Your task to perform on an android device: add a contact Image 0: 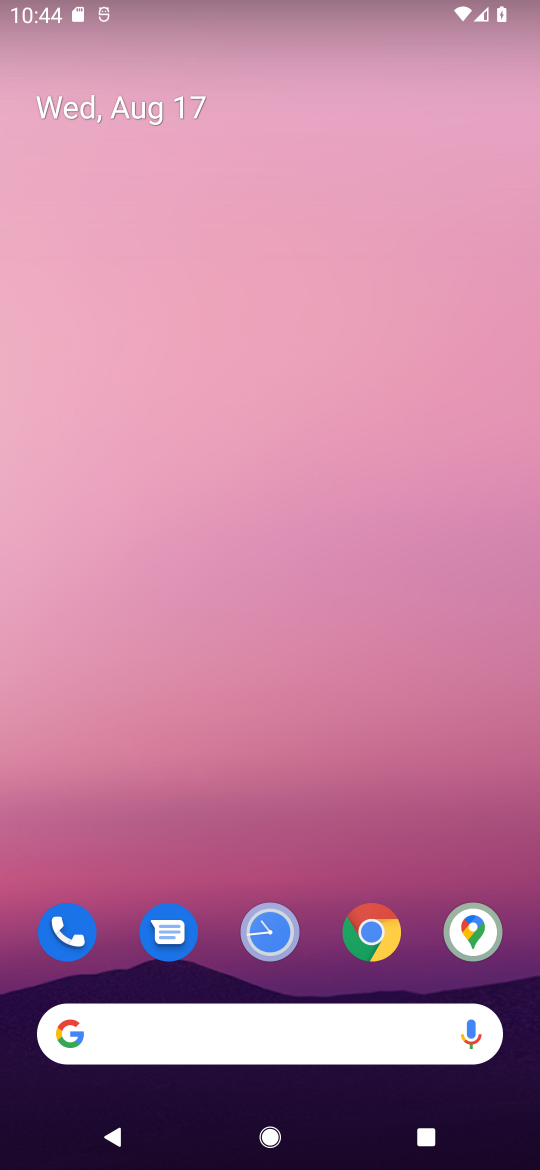
Step 0: drag from (315, 963) to (270, 60)
Your task to perform on an android device: add a contact Image 1: 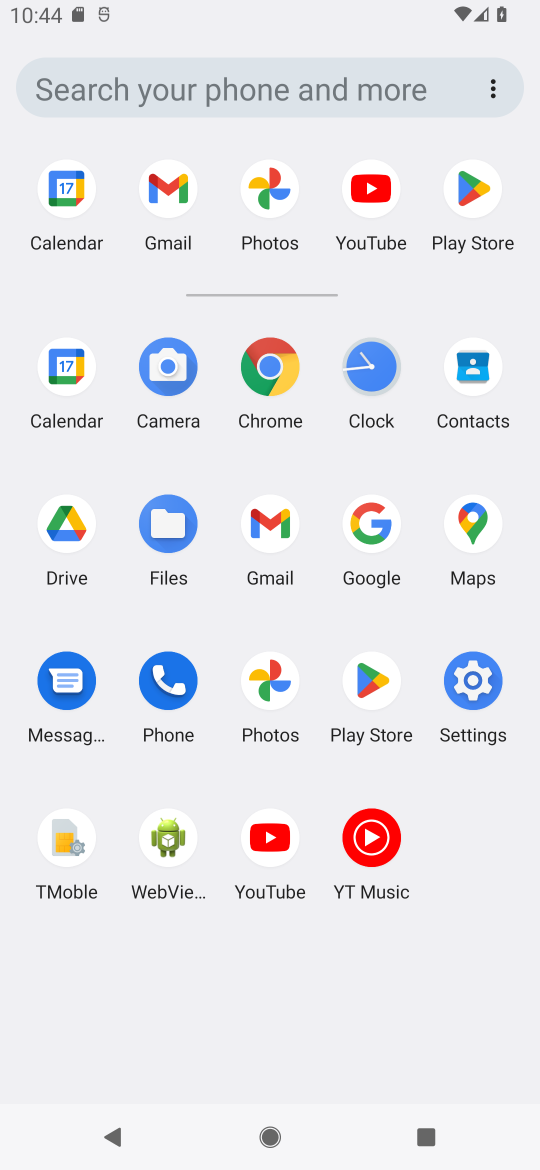
Step 1: click (463, 372)
Your task to perform on an android device: add a contact Image 2: 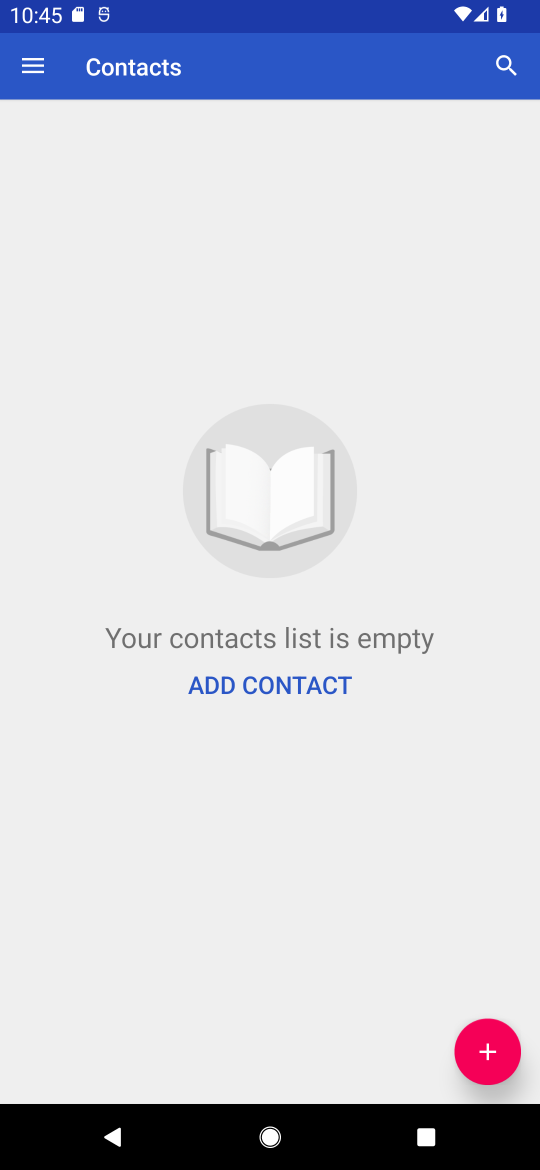
Step 2: click (479, 1046)
Your task to perform on an android device: add a contact Image 3: 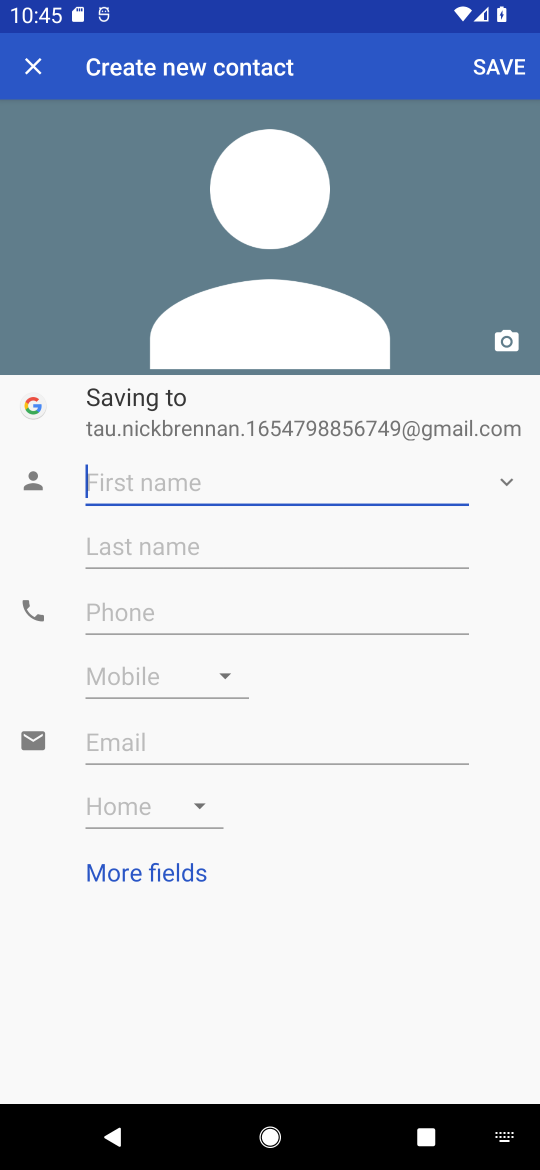
Step 3: type "julia"
Your task to perform on an android device: add a contact Image 4: 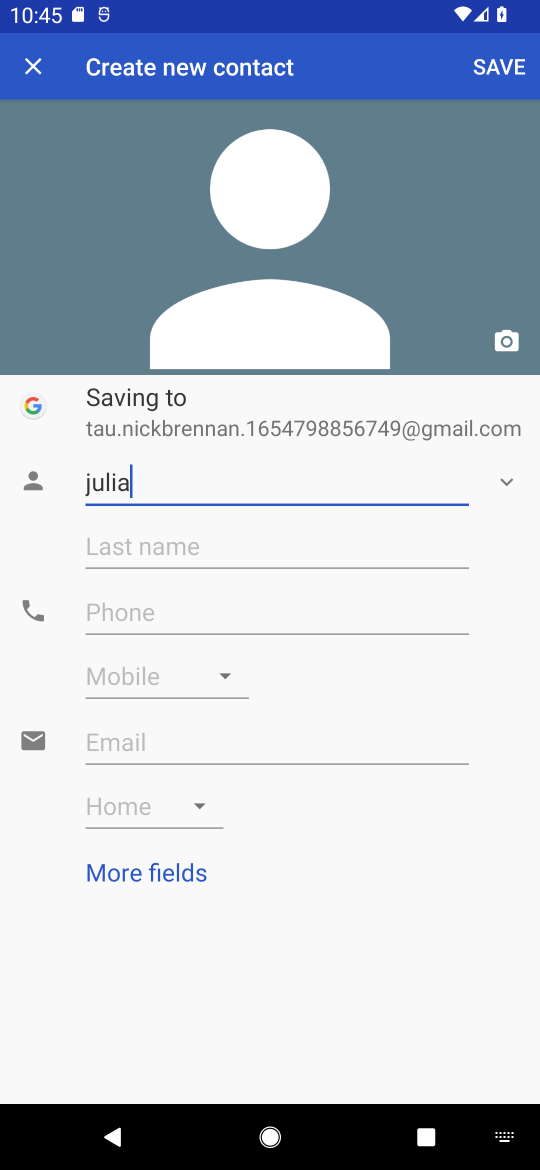
Step 4: click (120, 623)
Your task to perform on an android device: add a contact Image 5: 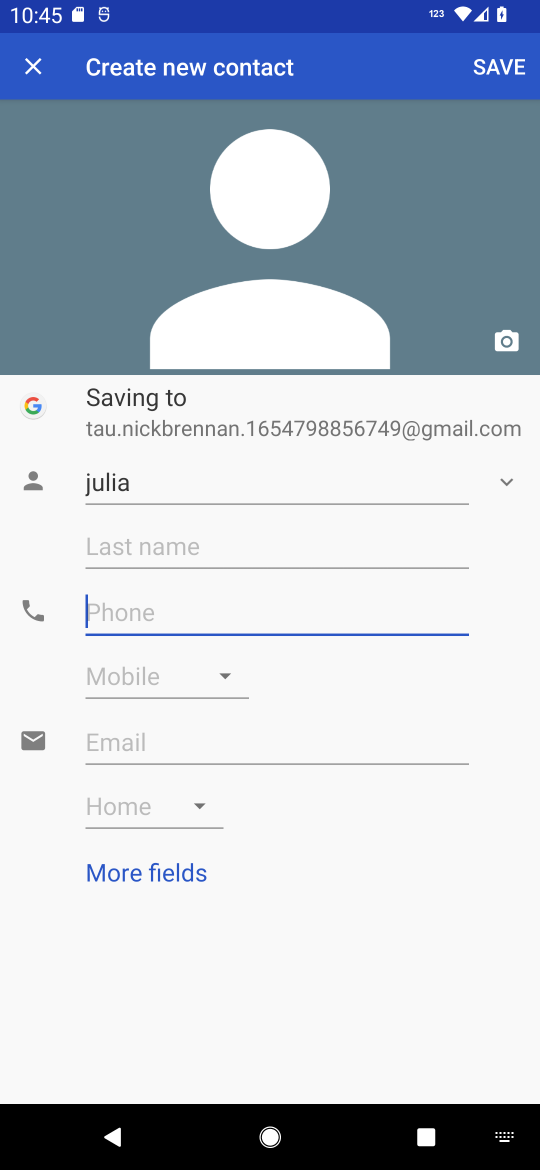
Step 5: type "999889"
Your task to perform on an android device: add a contact Image 6: 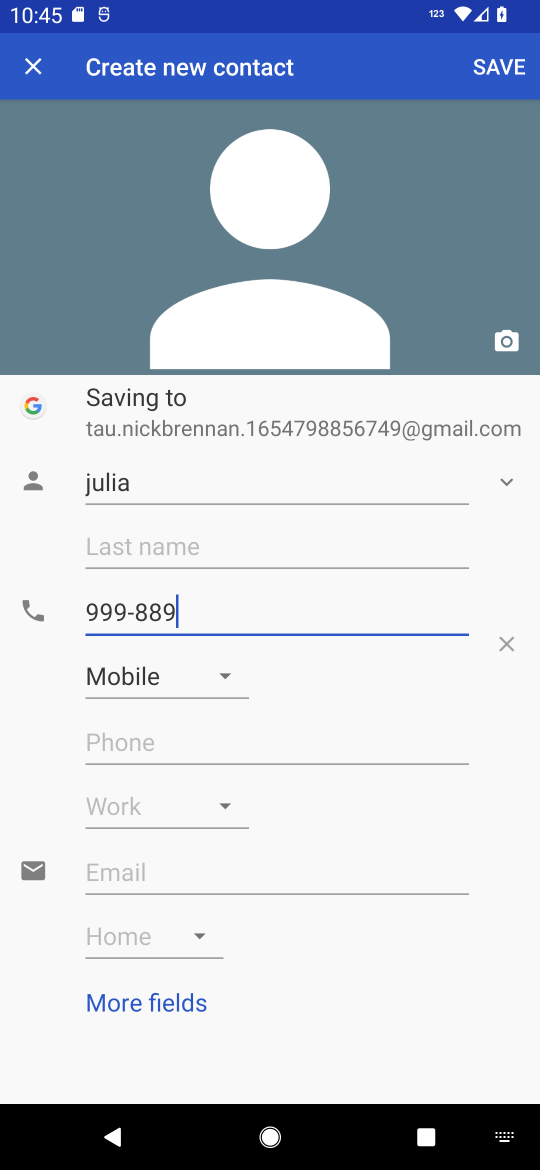
Step 6: click (509, 60)
Your task to perform on an android device: add a contact Image 7: 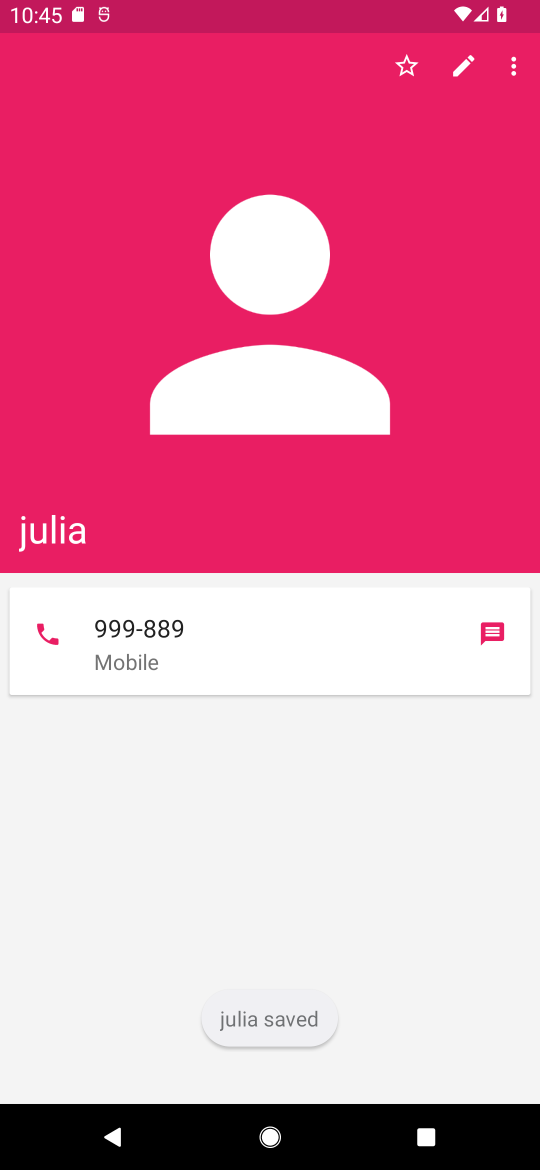
Step 7: task complete